Your task to perform on an android device: Open eBay Image 0: 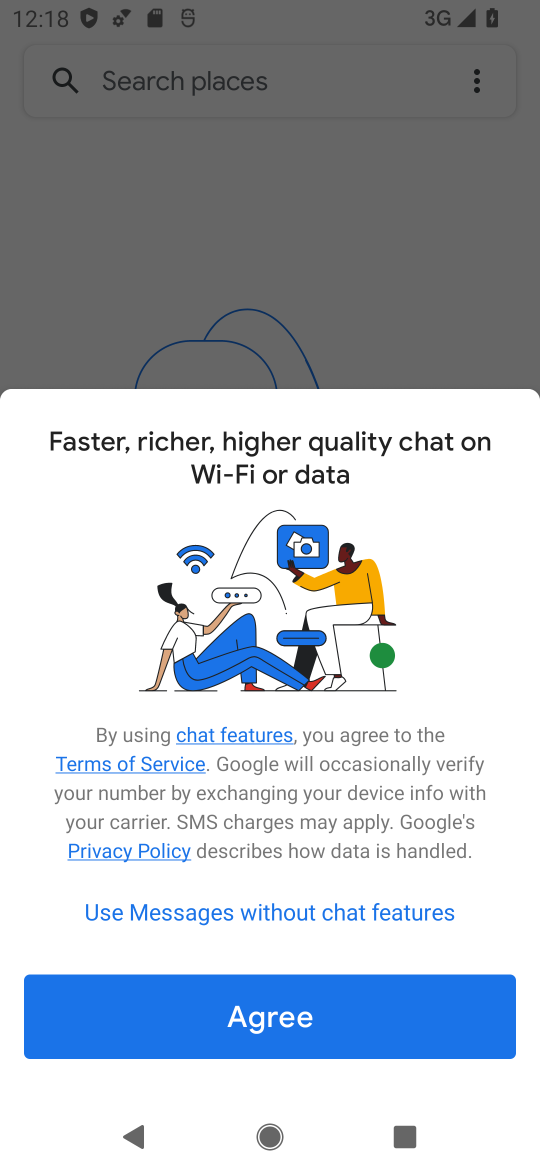
Step 0: press home button
Your task to perform on an android device: Open eBay Image 1: 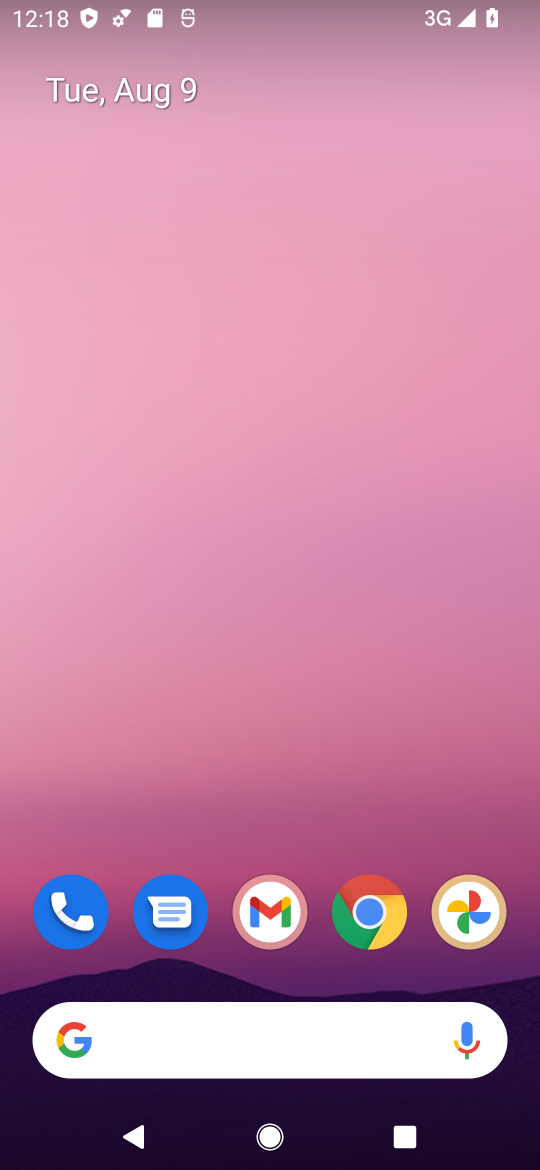
Step 1: drag from (232, 768) to (262, 245)
Your task to perform on an android device: Open eBay Image 2: 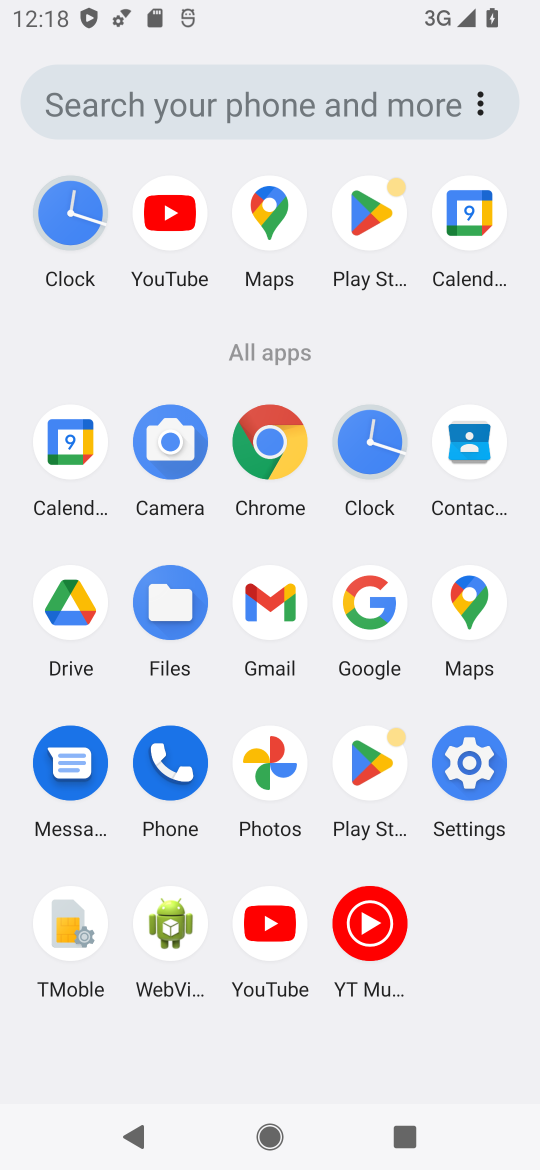
Step 2: click (364, 606)
Your task to perform on an android device: Open eBay Image 3: 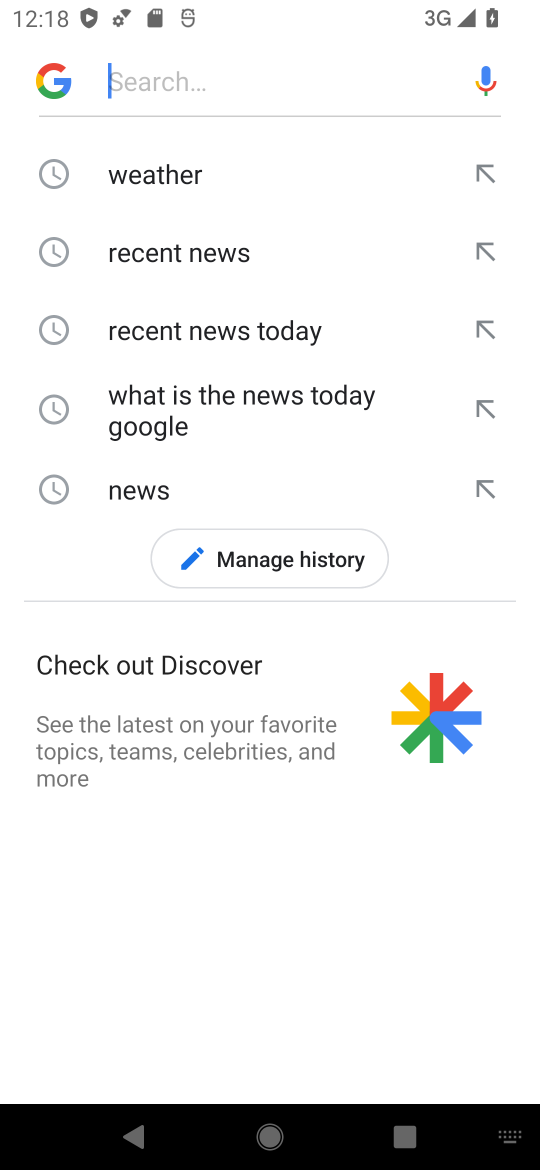
Step 3: click (153, 87)
Your task to perform on an android device: Open eBay Image 4: 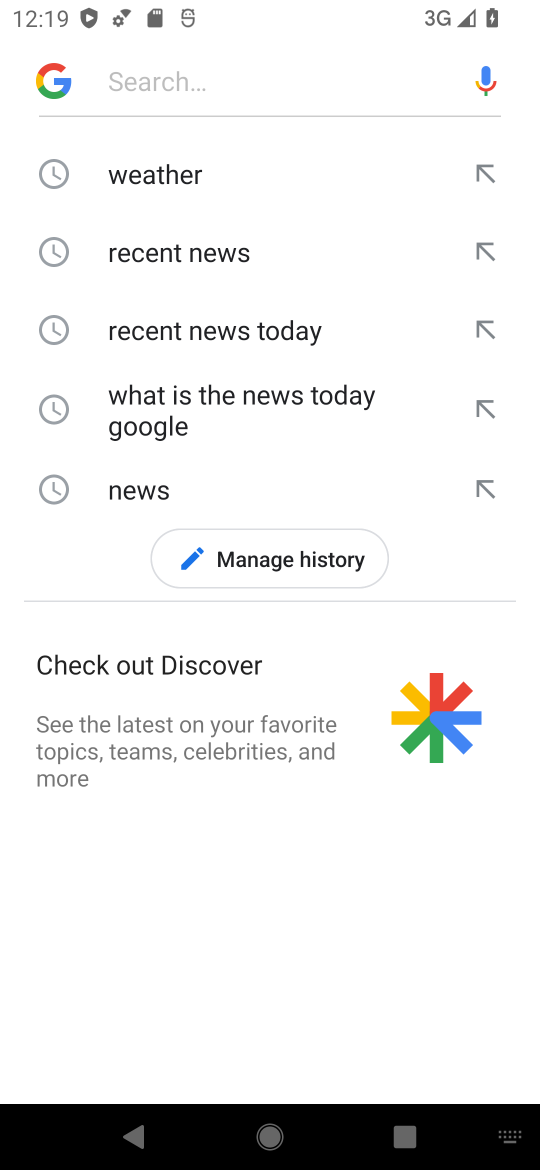
Step 4: type "eBay"
Your task to perform on an android device: Open eBay Image 5: 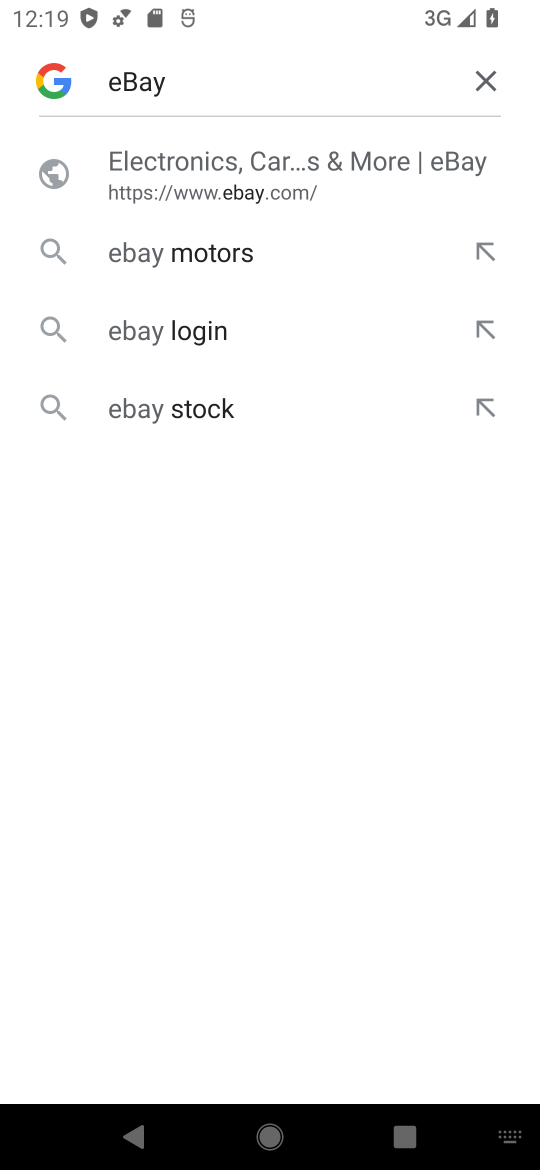
Step 5: click (210, 182)
Your task to perform on an android device: Open eBay Image 6: 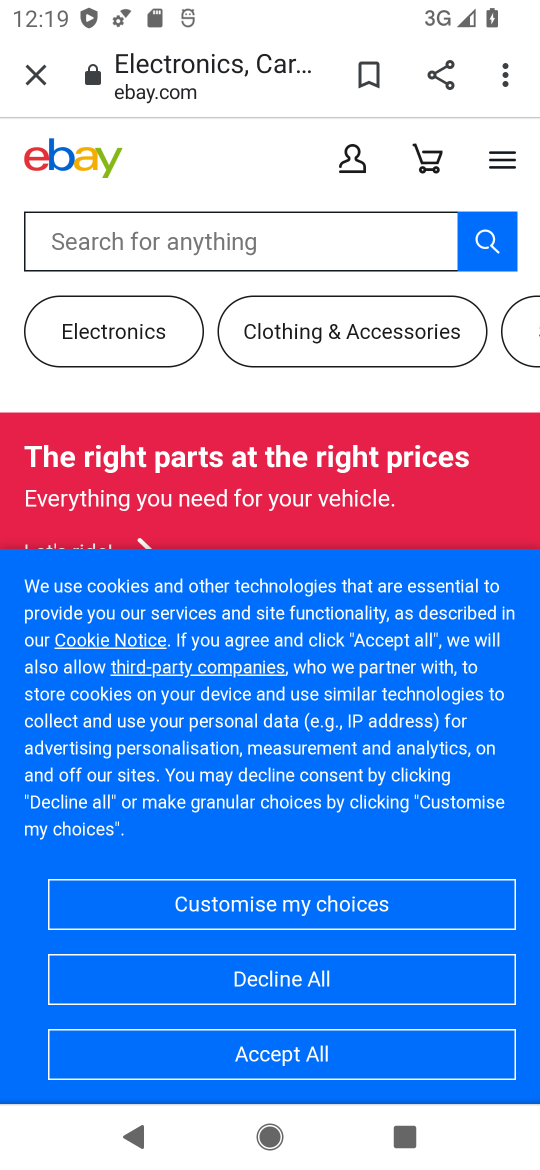
Step 6: task complete